Your task to perform on an android device: add a label to a message in the gmail app Image 0: 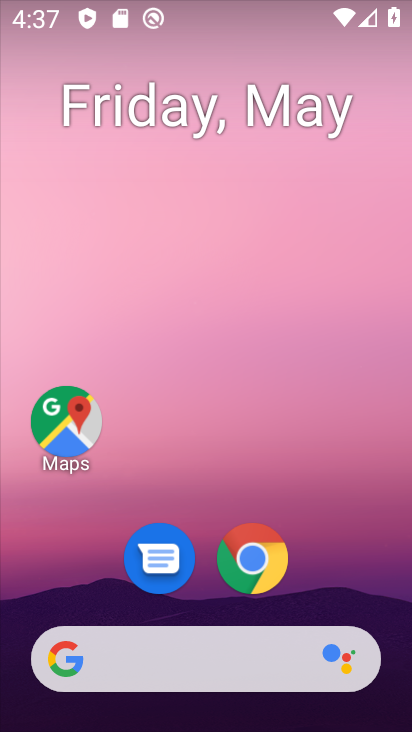
Step 0: drag from (371, 607) to (339, 83)
Your task to perform on an android device: add a label to a message in the gmail app Image 1: 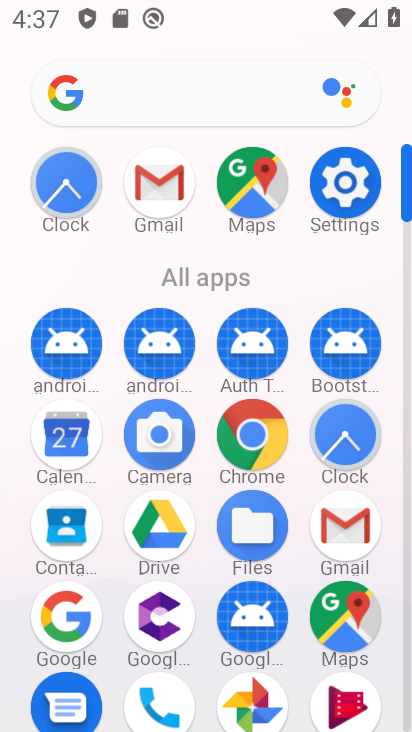
Step 1: click (162, 208)
Your task to perform on an android device: add a label to a message in the gmail app Image 2: 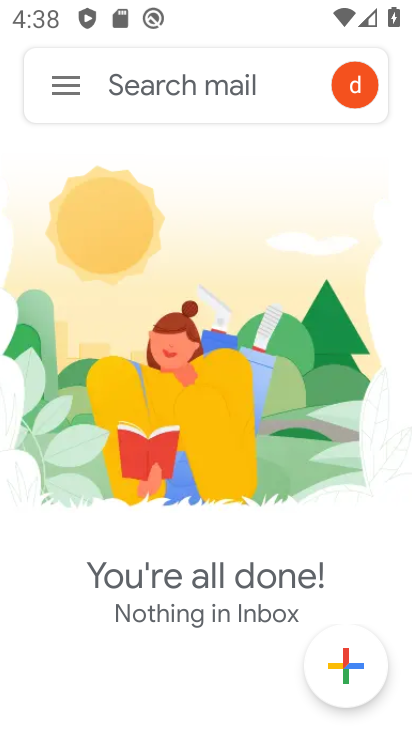
Step 2: task complete